Your task to perform on an android device: Go to Yahoo.com Image 0: 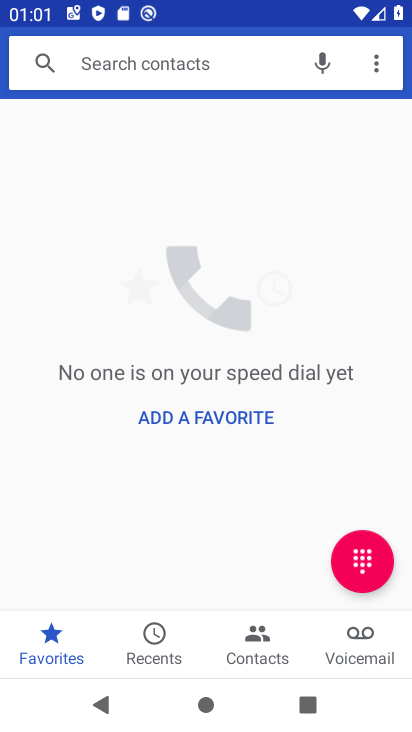
Step 0: press home button
Your task to perform on an android device: Go to Yahoo.com Image 1: 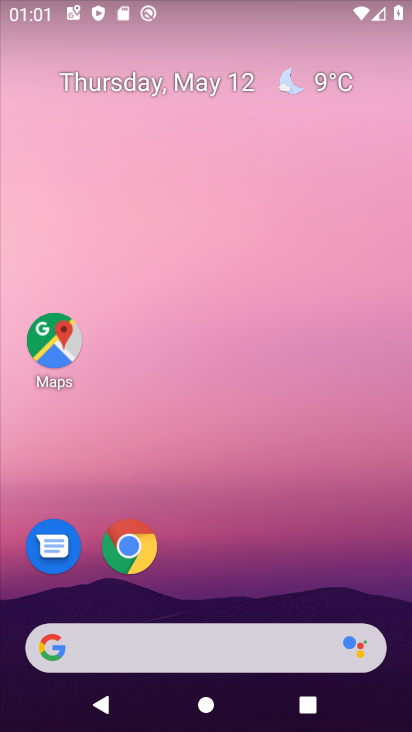
Step 1: click (130, 553)
Your task to perform on an android device: Go to Yahoo.com Image 2: 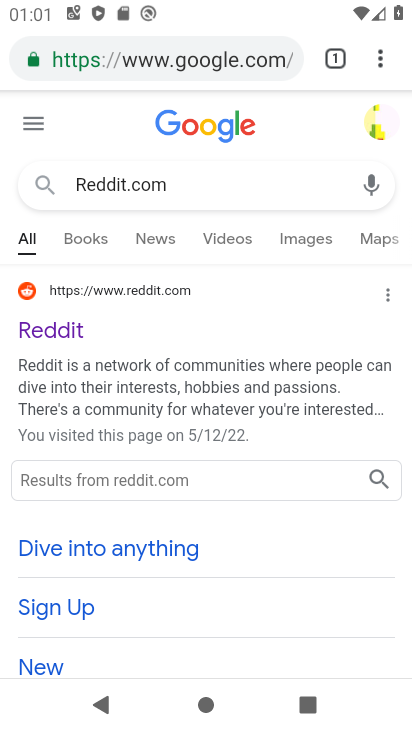
Step 2: click (154, 62)
Your task to perform on an android device: Go to Yahoo.com Image 3: 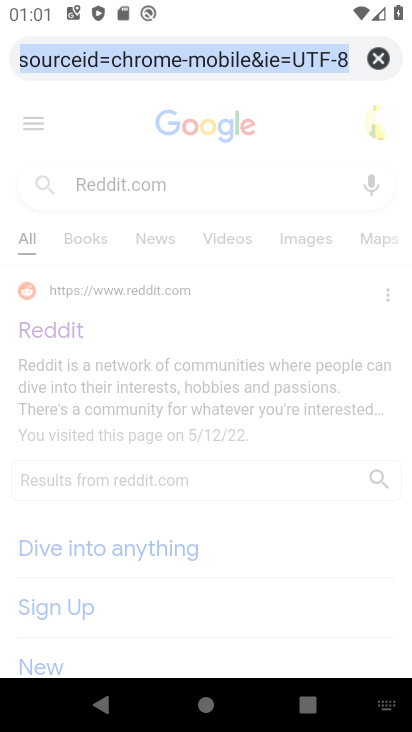
Step 3: type "Yahoo.com"
Your task to perform on an android device: Go to Yahoo.com Image 4: 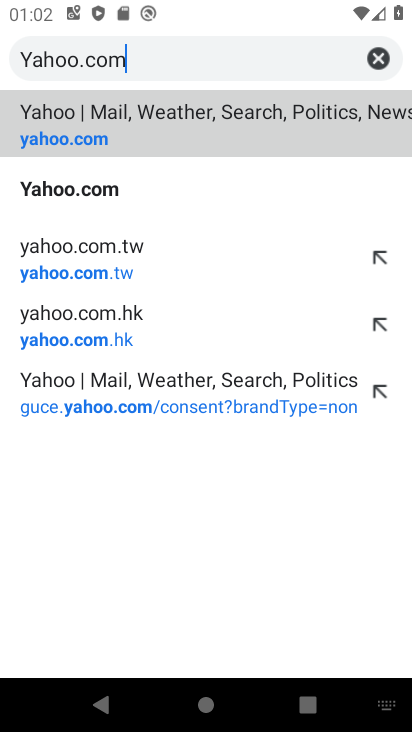
Step 4: click (115, 197)
Your task to perform on an android device: Go to Yahoo.com Image 5: 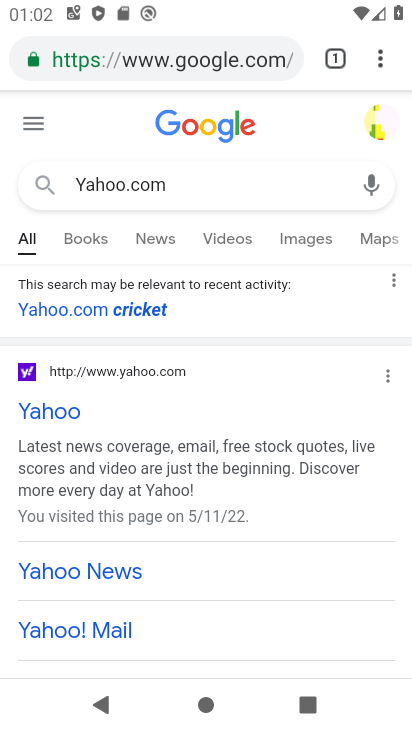
Step 5: task complete